Your task to perform on an android device: Search for vegetarian restaurants on Maps Image 0: 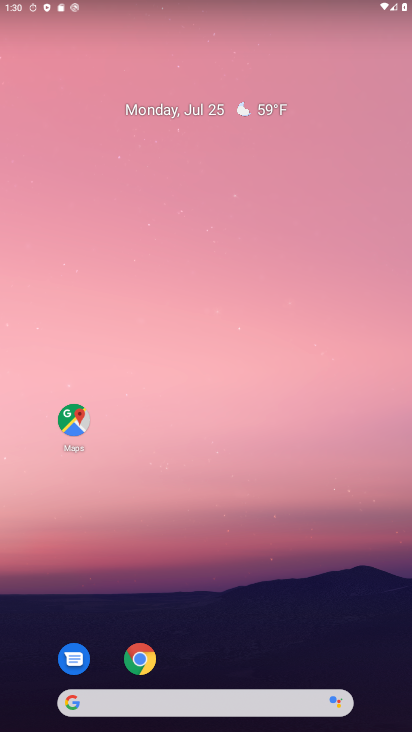
Step 0: click (82, 423)
Your task to perform on an android device: Search for vegetarian restaurants on Maps Image 1: 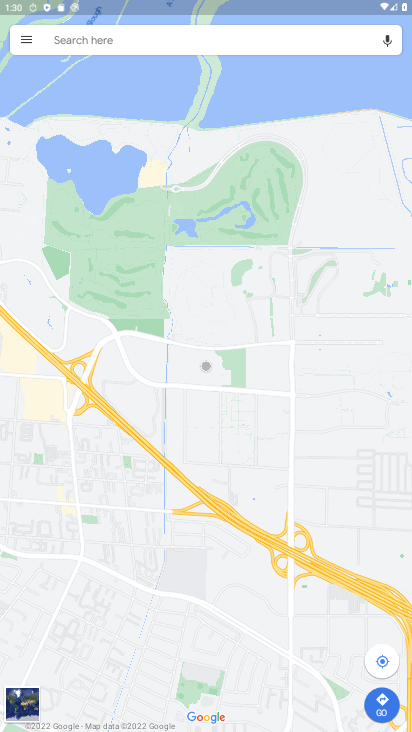
Step 1: click (109, 37)
Your task to perform on an android device: Search for vegetarian restaurants on Maps Image 2: 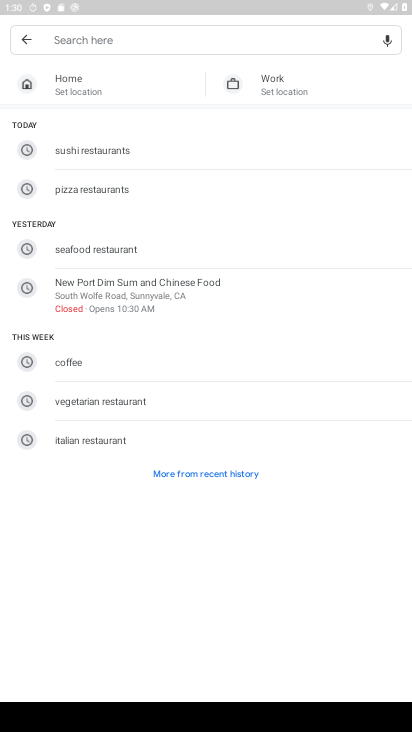
Step 2: type "vegetarian restaurants"
Your task to perform on an android device: Search for vegetarian restaurants on Maps Image 3: 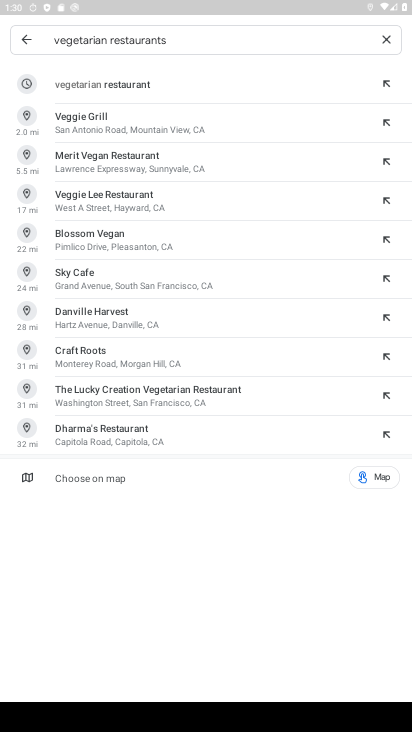
Step 3: click (81, 89)
Your task to perform on an android device: Search for vegetarian restaurants on Maps Image 4: 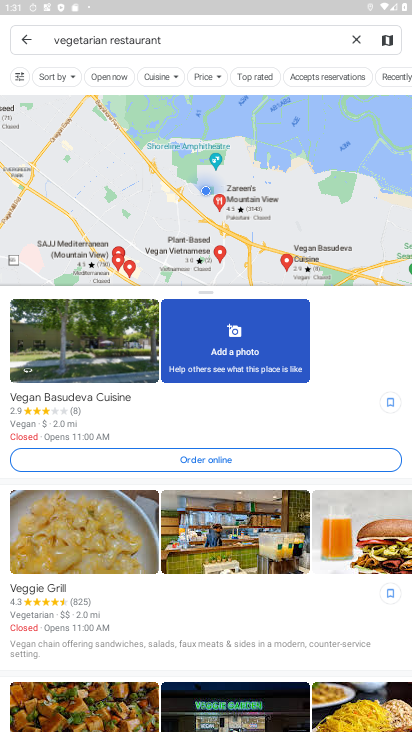
Step 4: task complete